Your task to perform on an android device: toggle improve location accuracy Image 0: 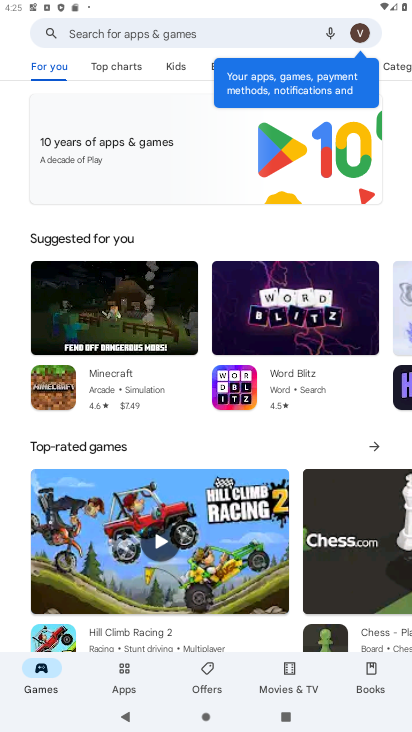
Step 0: press home button
Your task to perform on an android device: toggle improve location accuracy Image 1: 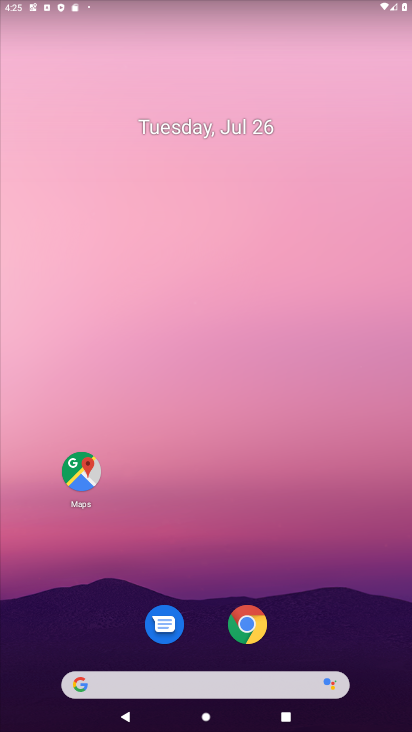
Step 1: drag from (260, 693) to (229, 72)
Your task to perform on an android device: toggle improve location accuracy Image 2: 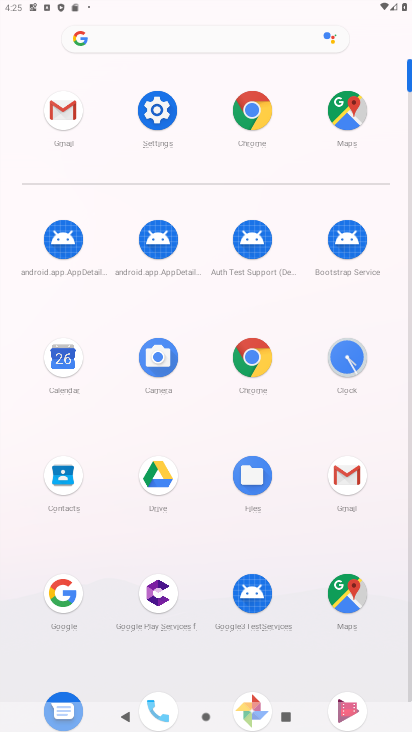
Step 2: click (161, 112)
Your task to perform on an android device: toggle improve location accuracy Image 3: 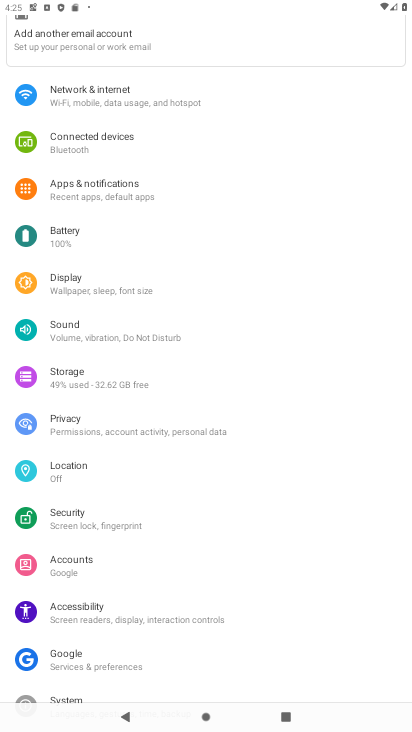
Step 3: click (95, 470)
Your task to perform on an android device: toggle improve location accuracy Image 4: 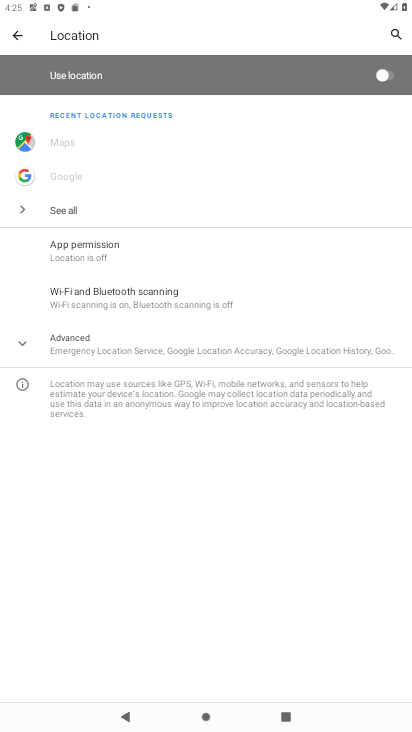
Step 4: click (132, 350)
Your task to perform on an android device: toggle improve location accuracy Image 5: 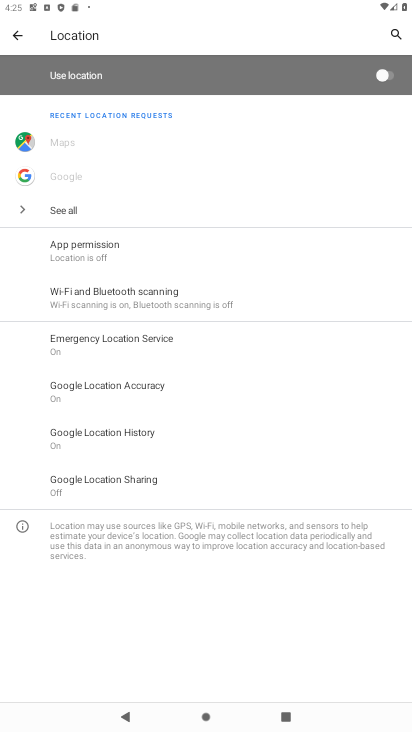
Step 5: click (139, 394)
Your task to perform on an android device: toggle improve location accuracy Image 6: 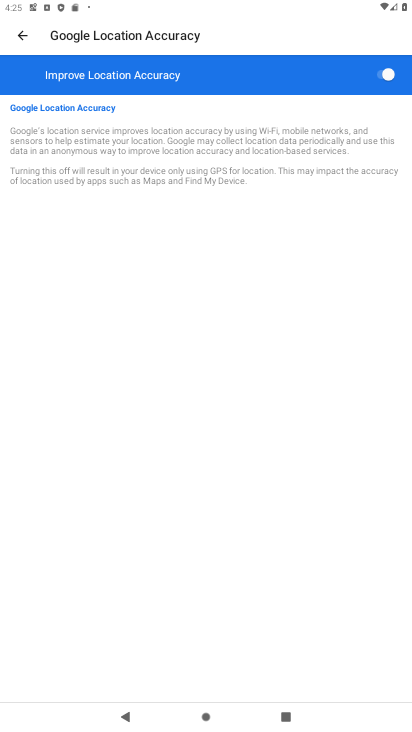
Step 6: click (381, 77)
Your task to perform on an android device: toggle improve location accuracy Image 7: 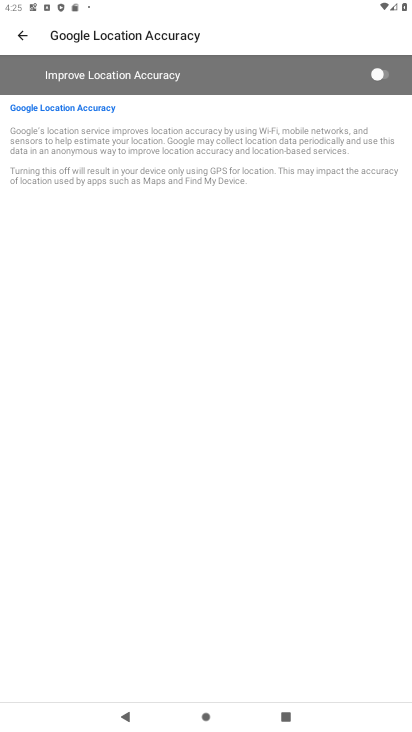
Step 7: task complete